Your task to perform on an android device: Go to Google Image 0: 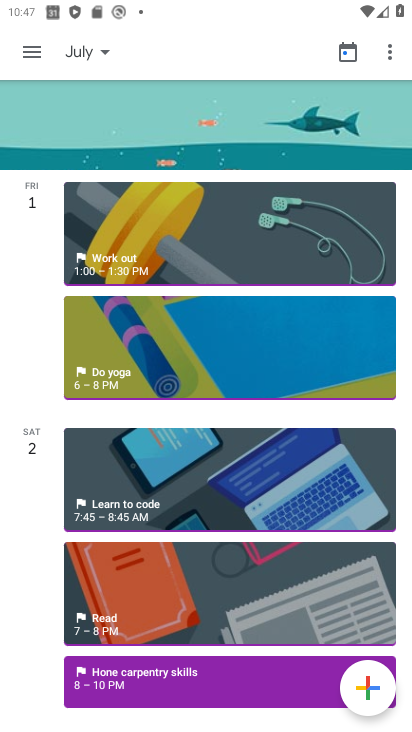
Step 0: press back button
Your task to perform on an android device: Go to Google Image 1: 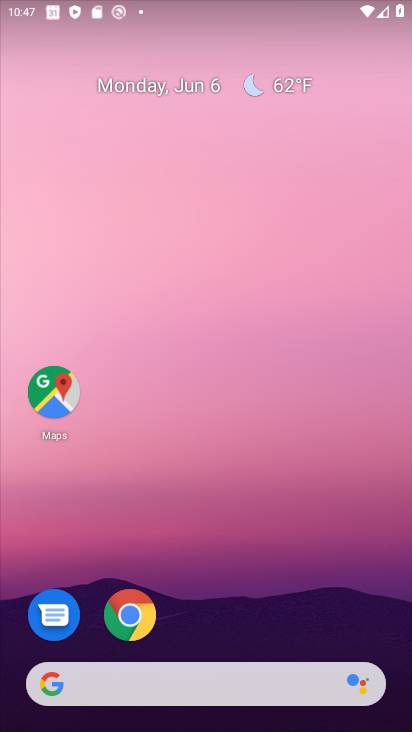
Step 1: drag from (288, 702) to (159, 128)
Your task to perform on an android device: Go to Google Image 2: 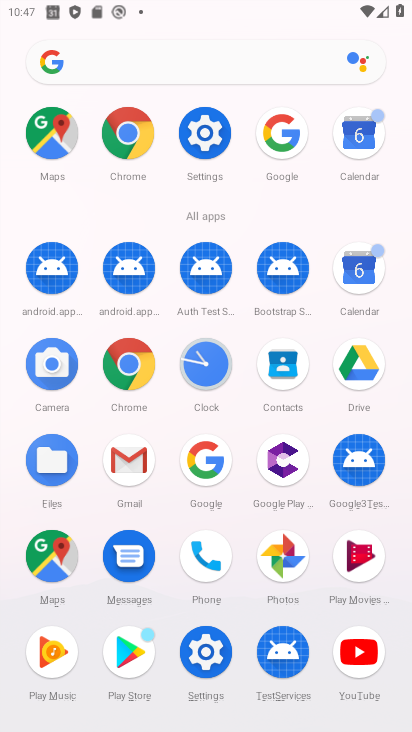
Step 2: click (202, 462)
Your task to perform on an android device: Go to Google Image 3: 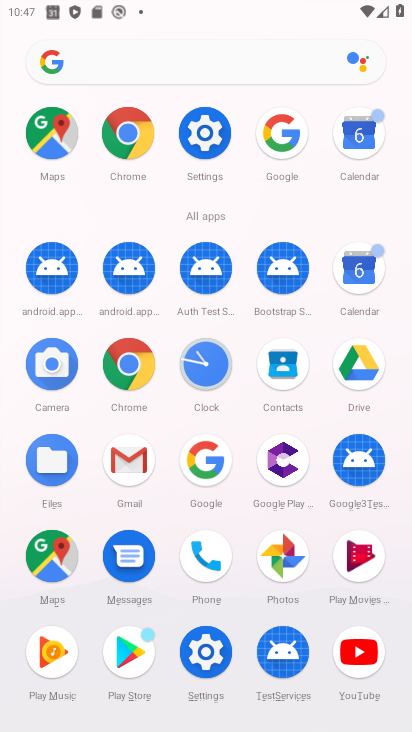
Step 3: click (202, 461)
Your task to perform on an android device: Go to Google Image 4: 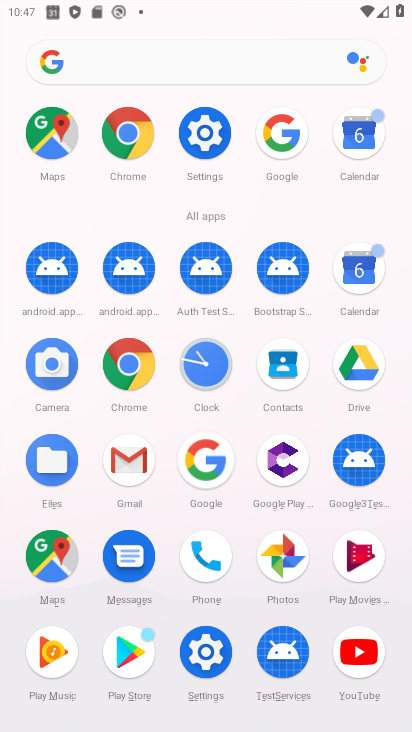
Step 4: click (207, 460)
Your task to perform on an android device: Go to Google Image 5: 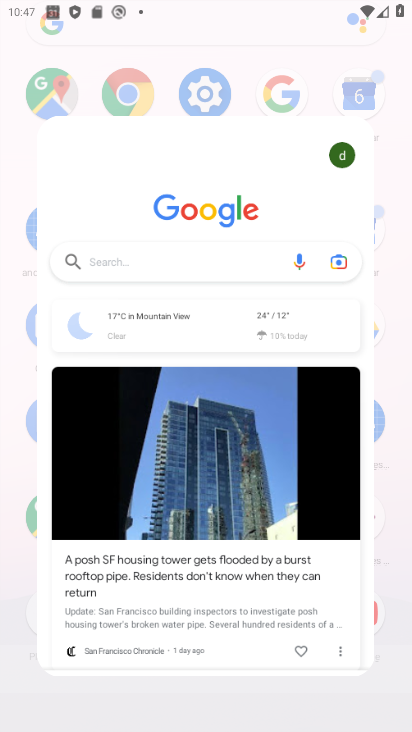
Step 5: click (208, 460)
Your task to perform on an android device: Go to Google Image 6: 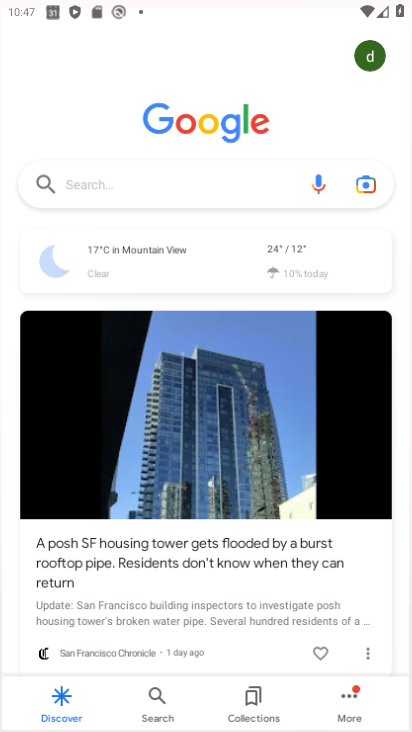
Step 6: click (208, 460)
Your task to perform on an android device: Go to Google Image 7: 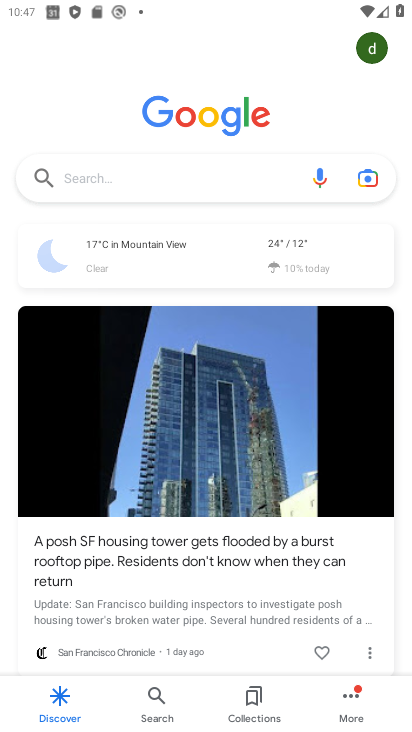
Step 7: click (208, 460)
Your task to perform on an android device: Go to Google Image 8: 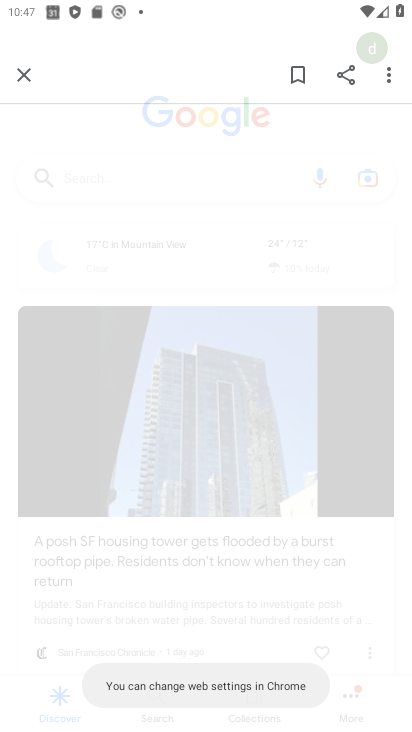
Step 8: task complete